Your task to perform on an android device: set an alarm Image 0: 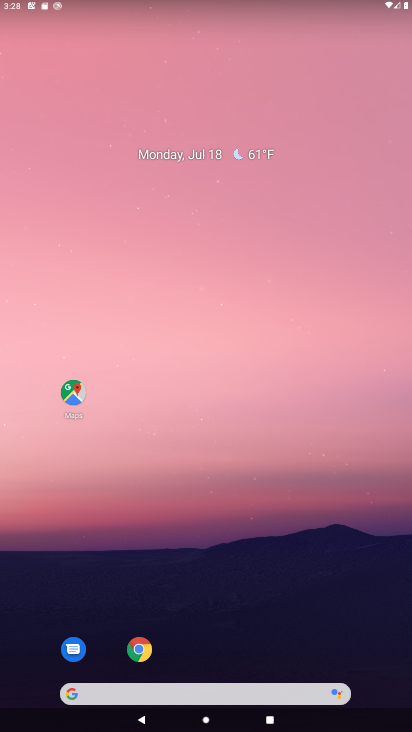
Step 0: drag from (272, 659) to (252, 204)
Your task to perform on an android device: set an alarm Image 1: 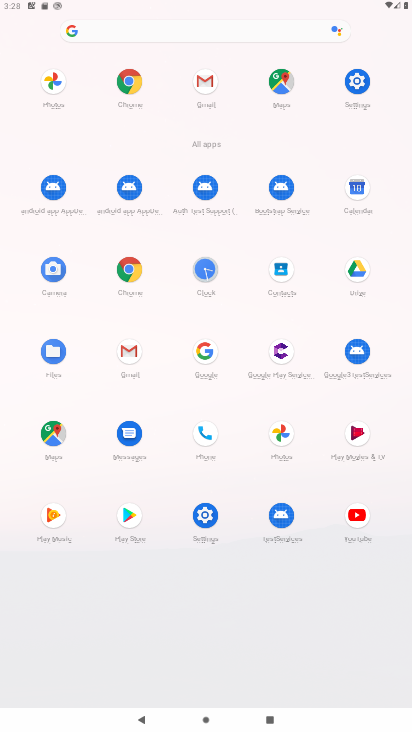
Step 1: click (210, 265)
Your task to perform on an android device: set an alarm Image 2: 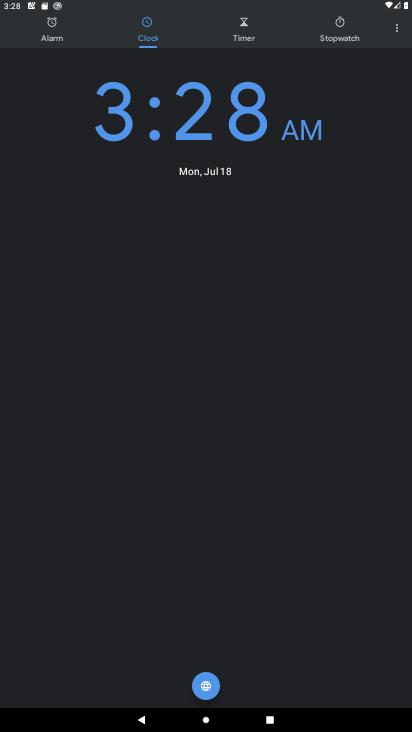
Step 2: click (40, 38)
Your task to perform on an android device: set an alarm Image 3: 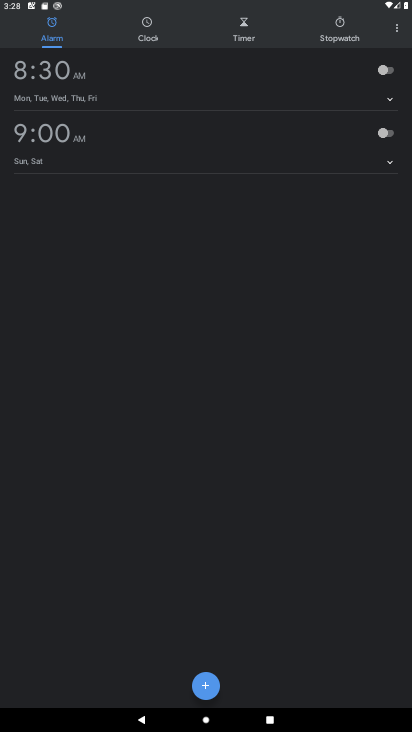
Step 3: click (208, 692)
Your task to perform on an android device: set an alarm Image 4: 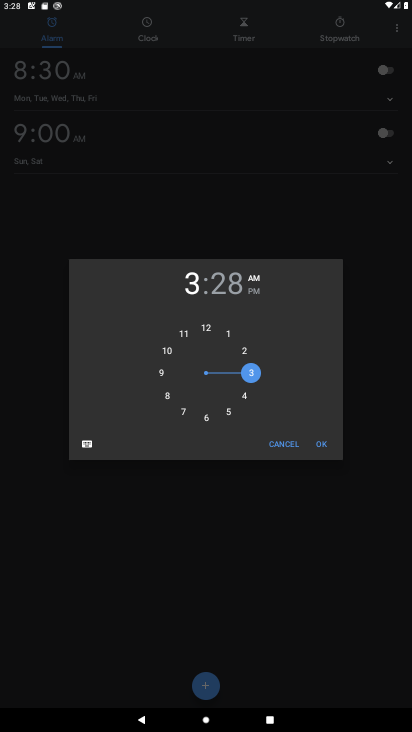
Step 4: click (323, 445)
Your task to perform on an android device: set an alarm Image 5: 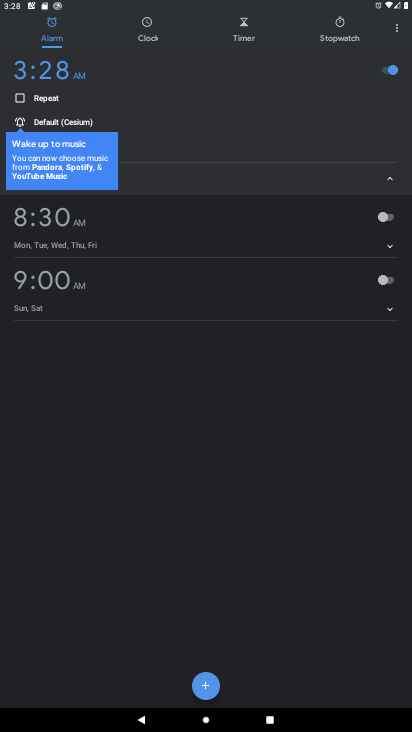
Step 5: click (382, 183)
Your task to perform on an android device: set an alarm Image 6: 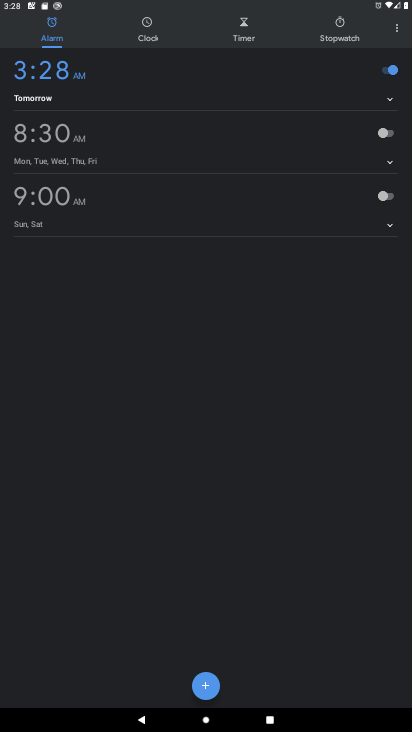
Step 6: task complete